Your task to perform on an android device: Check the weather Image 0: 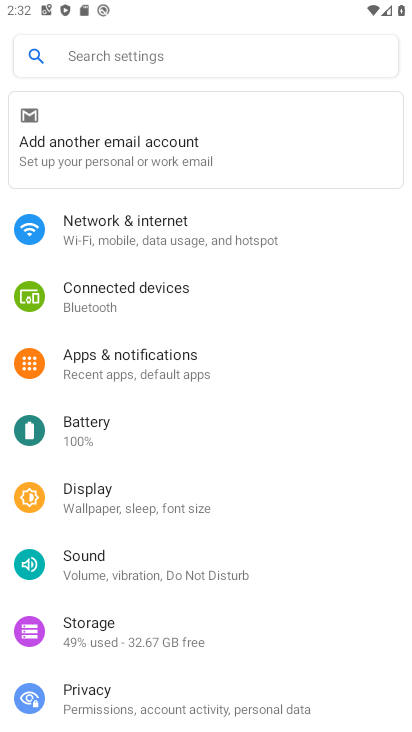
Step 0: press home button
Your task to perform on an android device: Check the weather Image 1: 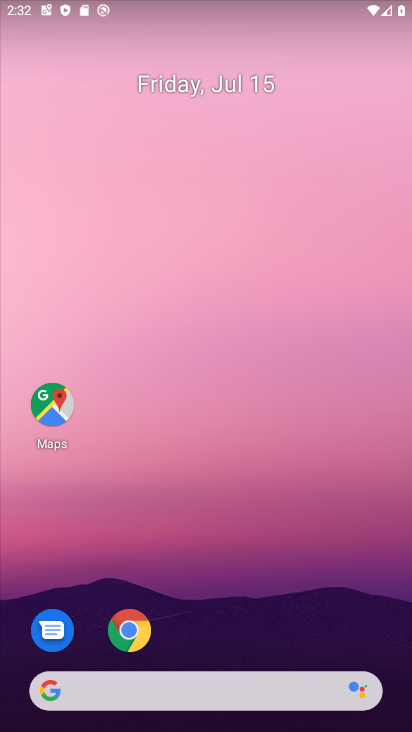
Step 1: click (211, 694)
Your task to perform on an android device: Check the weather Image 2: 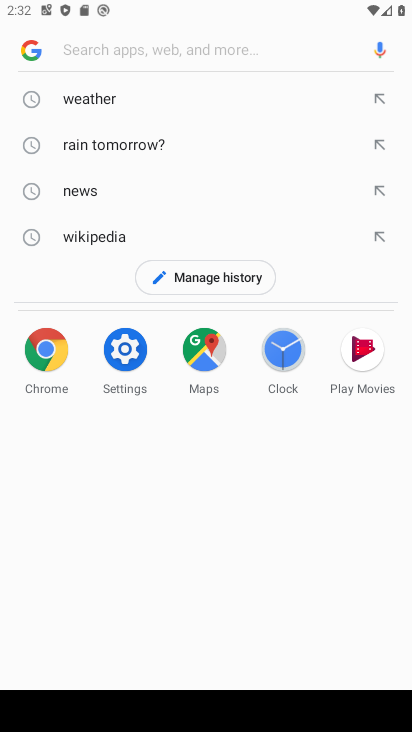
Step 2: click (104, 94)
Your task to perform on an android device: Check the weather Image 3: 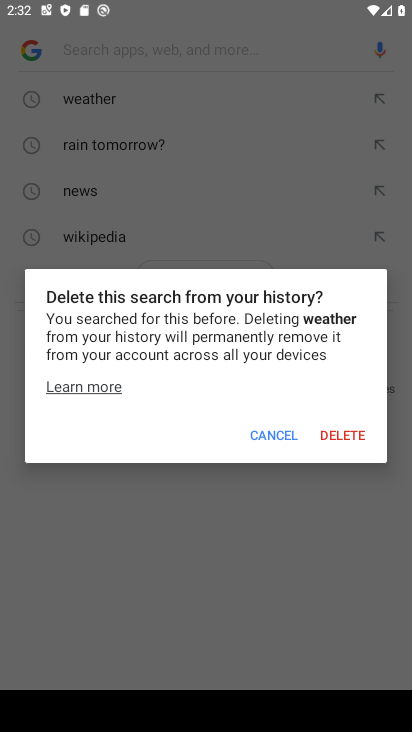
Step 3: click (264, 439)
Your task to perform on an android device: Check the weather Image 4: 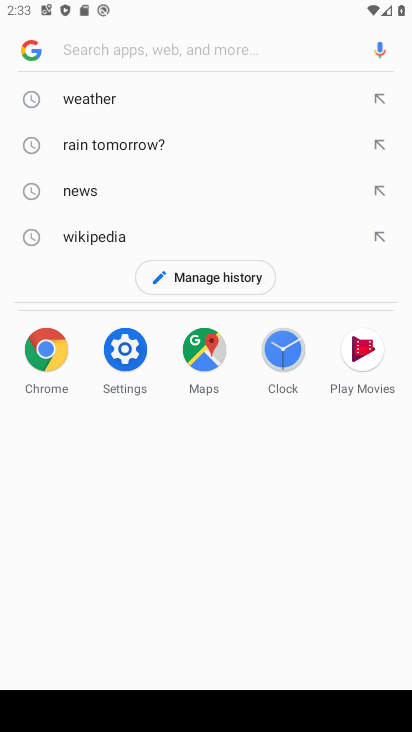
Step 4: click (148, 102)
Your task to perform on an android device: Check the weather Image 5: 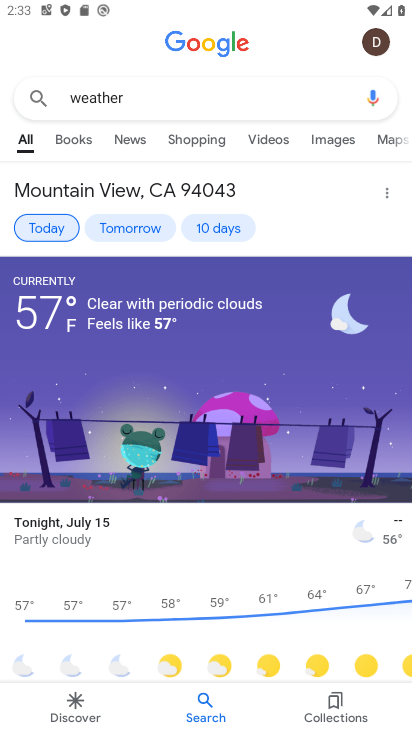
Step 5: task complete